Your task to perform on an android device: turn on sleep mode Image 0: 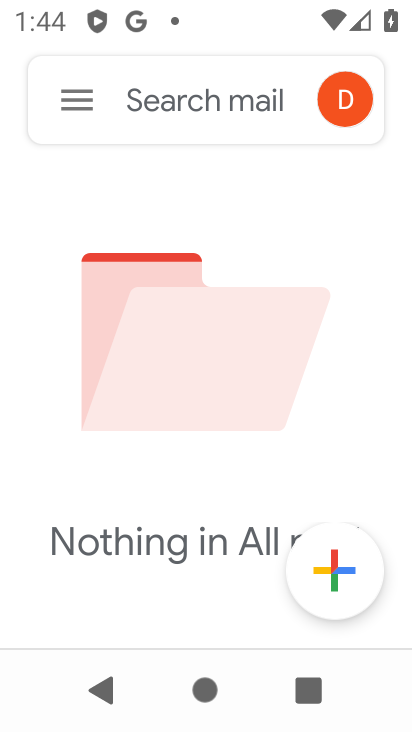
Step 0: press home button
Your task to perform on an android device: turn on sleep mode Image 1: 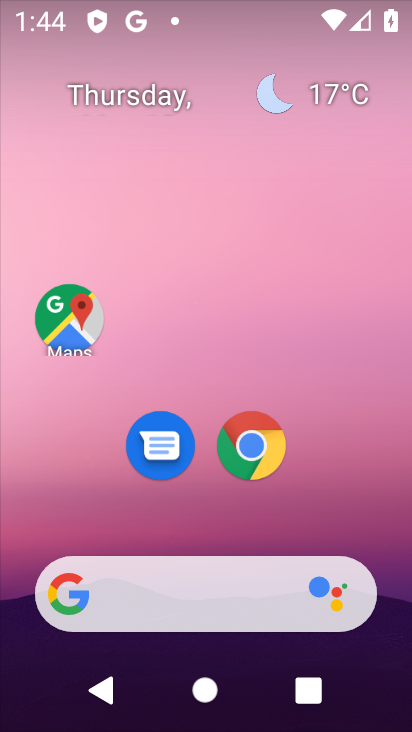
Step 1: drag from (326, 482) to (246, 4)
Your task to perform on an android device: turn on sleep mode Image 2: 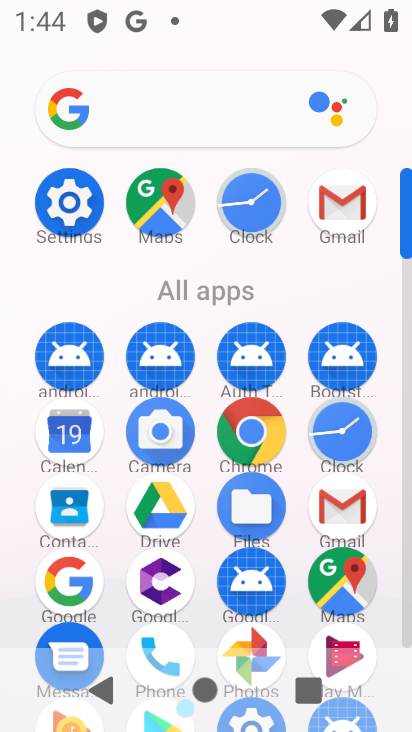
Step 2: click (68, 184)
Your task to perform on an android device: turn on sleep mode Image 3: 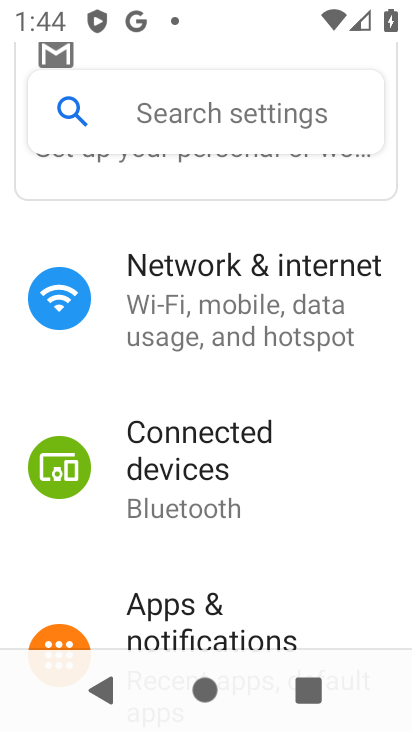
Step 3: drag from (241, 536) to (241, 252)
Your task to perform on an android device: turn on sleep mode Image 4: 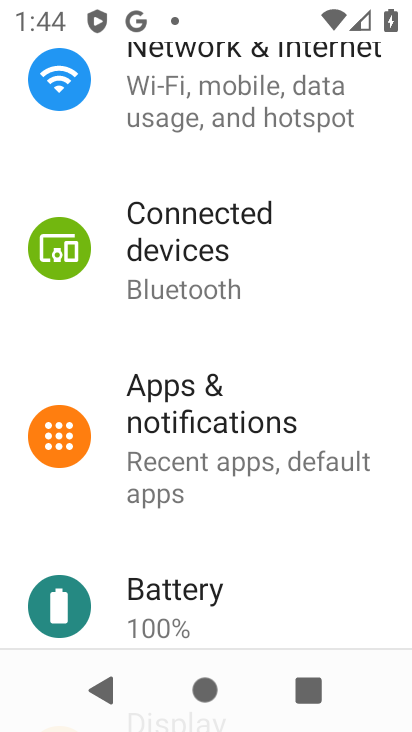
Step 4: click (208, 61)
Your task to perform on an android device: turn on sleep mode Image 5: 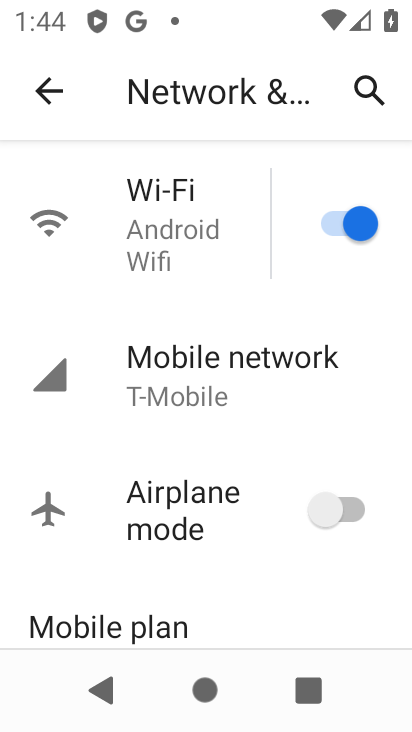
Step 5: task complete